Your task to perform on an android device: open app "Flipkart Online Shopping App" Image 0: 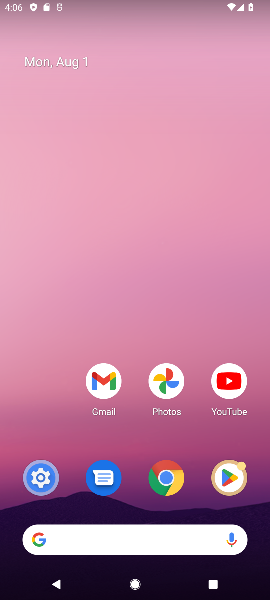
Step 0: click (229, 475)
Your task to perform on an android device: open app "Flipkart Online Shopping App" Image 1: 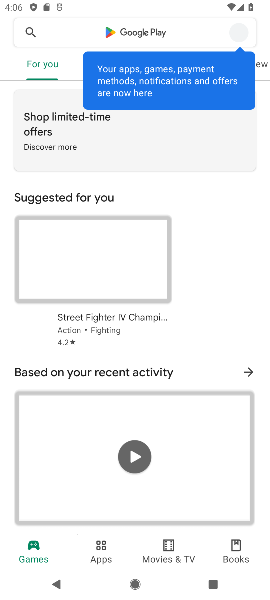
Step 1: click (136, 46)
Your task to perform on an android device: open app "Flipkart Online Shopping App" Image 2: 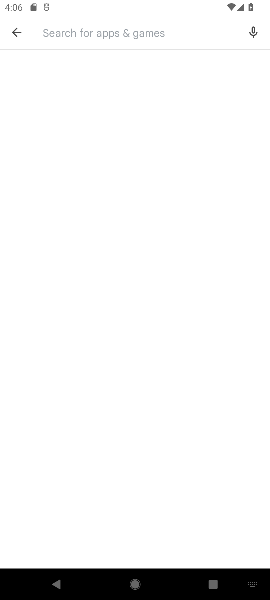
Step 2: click (254, 579)
Your task to perform on an android device: open app "Flipkart Online Shopping App" Image 3: 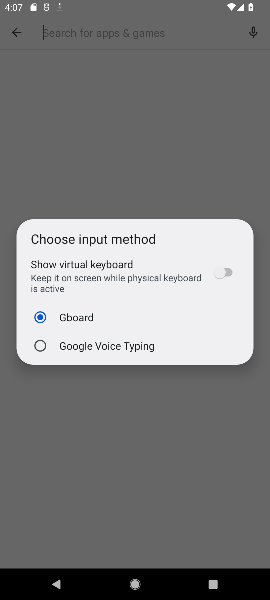
Step 3: click (228, 275)
Your task to perform on an android device: open app "Flipkart Online Shopping App" Image 4: 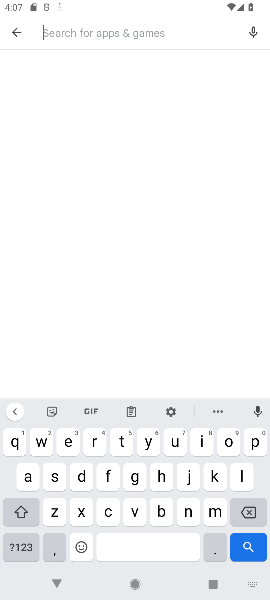
Step 4: click (109, 475)
Your task to perform on an android device: open app "Flipkart Online Shopping App" Image 5: 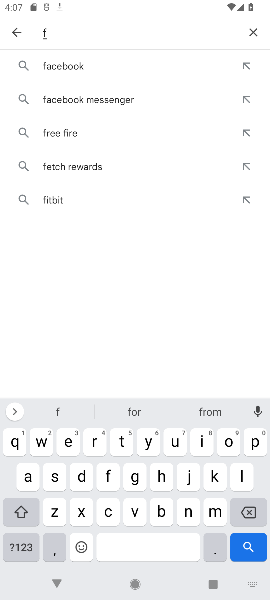
Step 5: click (246, 482)
Your task to perform on an android device: open app "Flipkart Online Shopping App" Image 6: 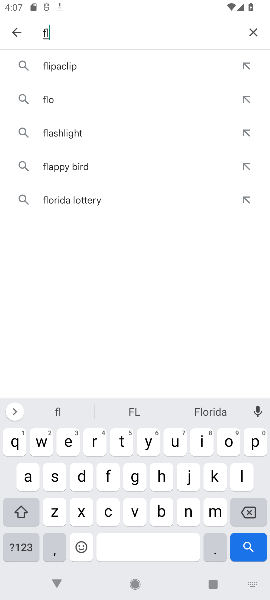
Step 6: click (201, 445)
Your task to perform on an android device: open app "Flipkart Online Shopping App" Image 7: 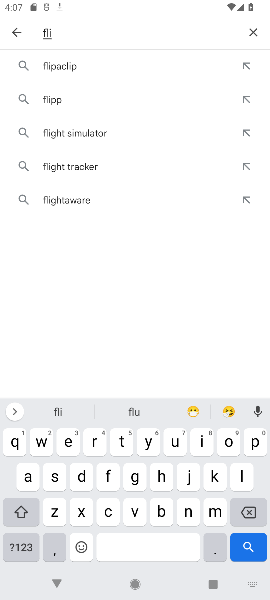
Step 7: click (256, 442)
Your task to perform on an android device: open app "Flipkart Online Shopping App" Image 8: 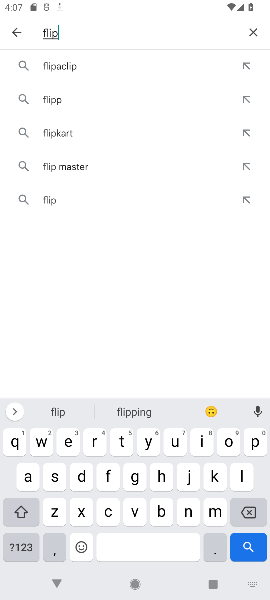
Step 8: click (214, 476)
Your task to perform on an android device: open app "Flipkart Online Shopping App" Image 9: 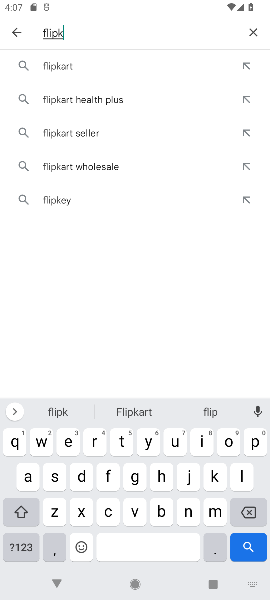
Step 9: click (58, 68)
Your task to perform on an android device: open app "Flipkart Online Shopping App" Image 10: 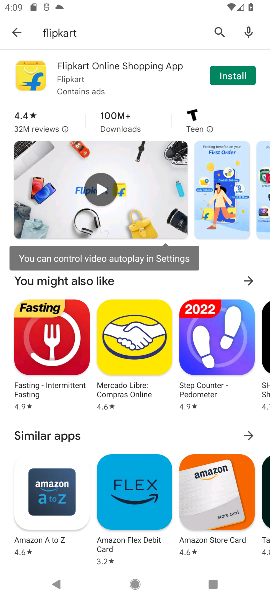
Step 10: task complete